Your task to perform on an android device: toggle priority inbox in the gmail app Image 0: 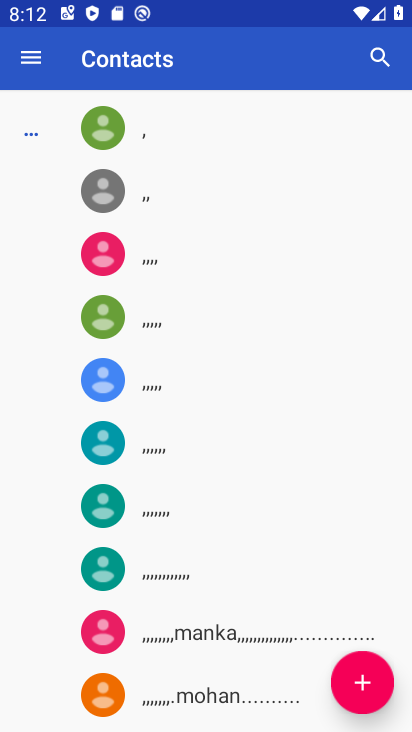
Step 0: press back button
Your task to perform on an android device: toggle priority inbox in the gmail app Image 1: 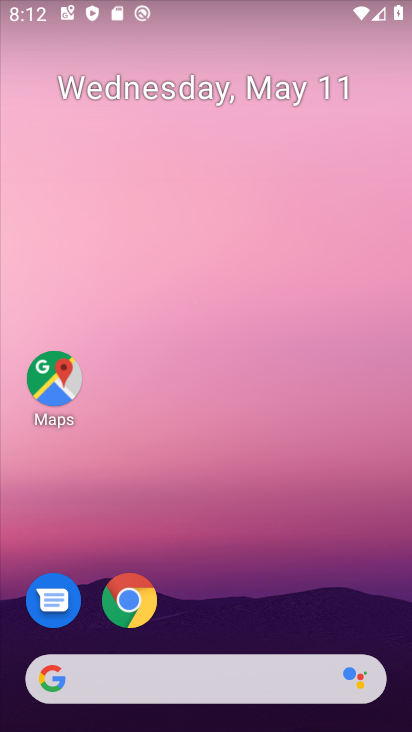
Step 1: drag from (266, 601) to (241, 19)
Your task to perform on an android device: toggle priority inbox in the gmail app Image 2: 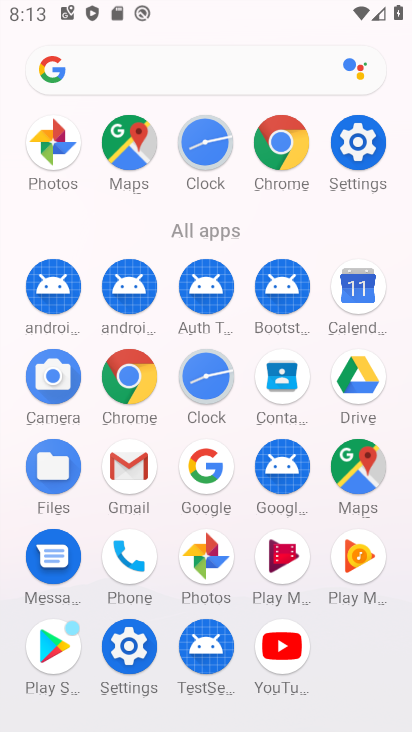
Step 2: click (130, 467)
Your task to perform on an android device: toggle priority inbox in the gmail app Image 3: 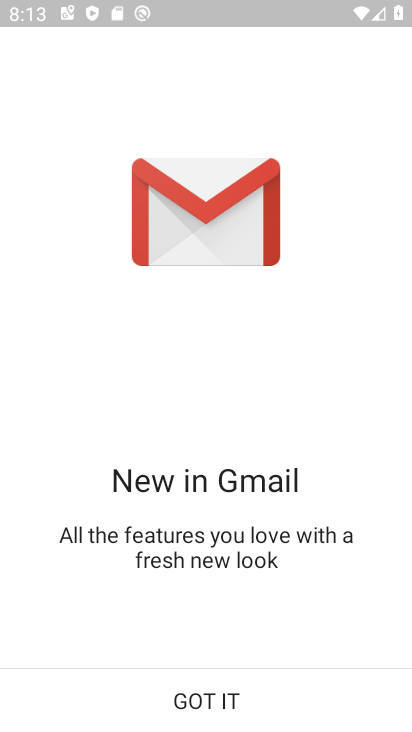
Step 3: click (193, 699)
Your task to perform on an android device: toggle priority inbox in the gmail app Image 4: 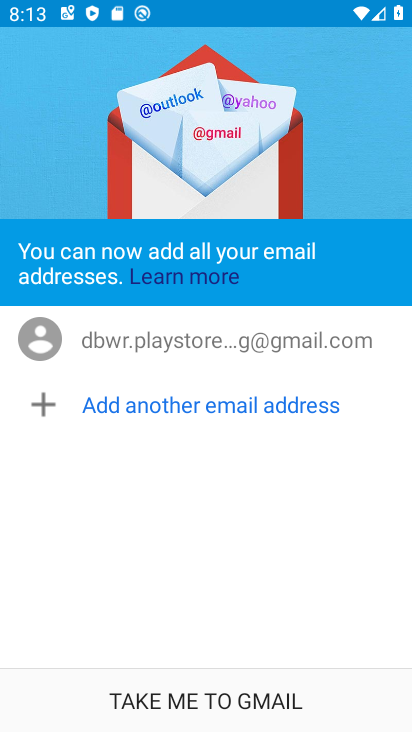
Step 4: click (193, 699)
Your task to perform on an android device: toggle priority inbox in the gmail app Image 5: 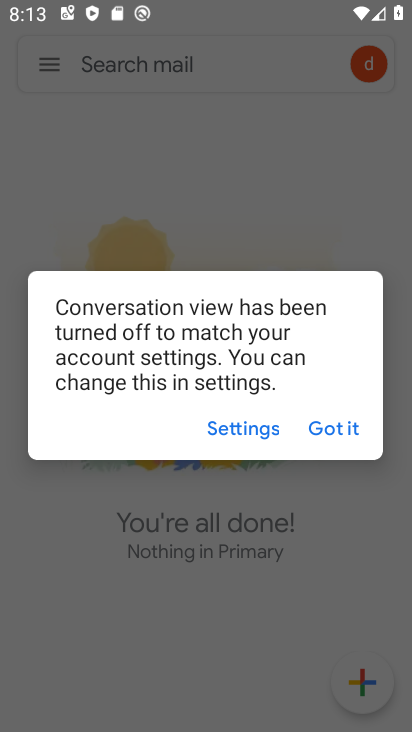
Step 5: click (327, 425)
Your task to perform on an android device: toggle priority inbox in the gmail app Image 6: 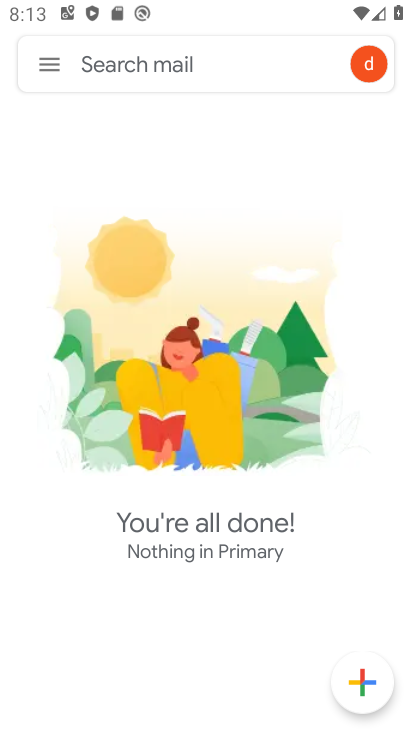
Step 6: click (52, 67)
Your task to perform on an android device: toggle priority inbox in the gmail app Image 7: 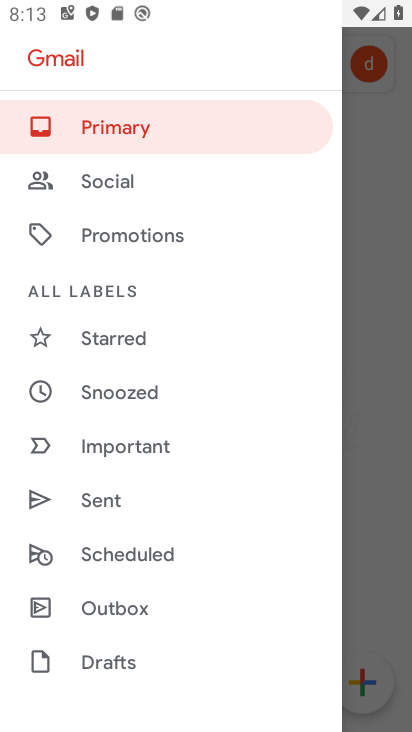
Step 7: drag from (136, 495) to (207, 395)
Your task to perform on an android device: toggle priority inbox in the gmail app Image 8: 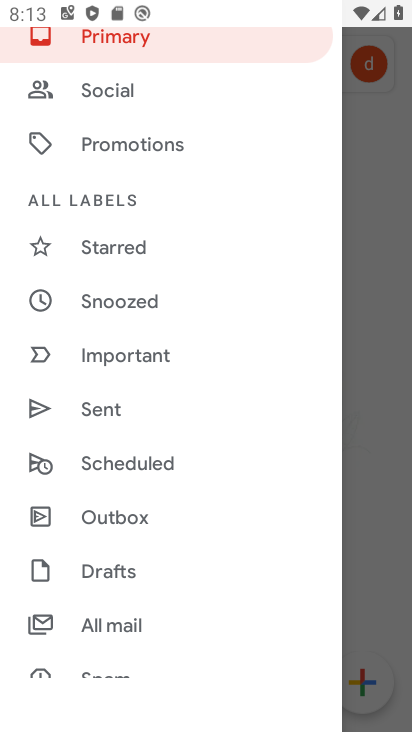
Step 8: drag from (143, 487) to (195, 401)
Your task to perform on an android device: toggle priority inbox in the gmail app Image 9: 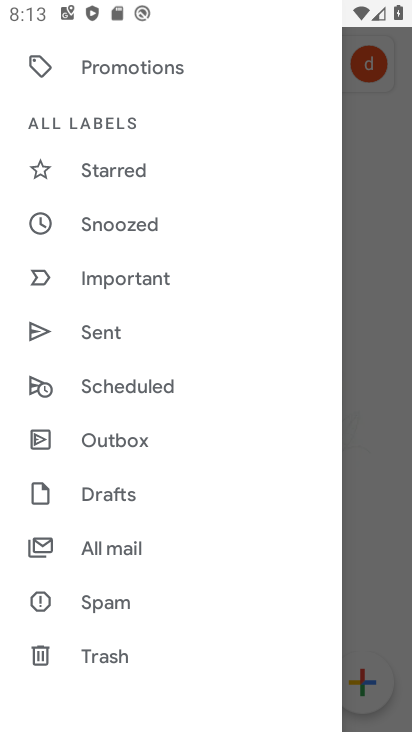
Step 9: drag from (120, 519) to (170, 416)
Your task to perform on an android device: toggle priority inbox in the gmail app Image 10: 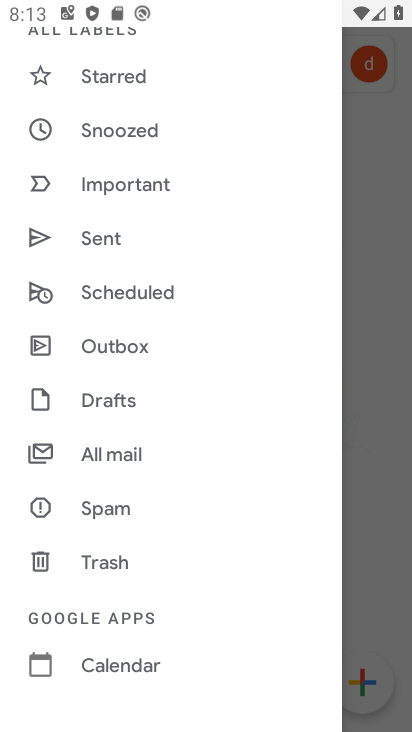
Step 10: drag from (104, 489) to (179, 399)
Your task to perform on an android device: toggle priority inbox in the gmail app Image 11: 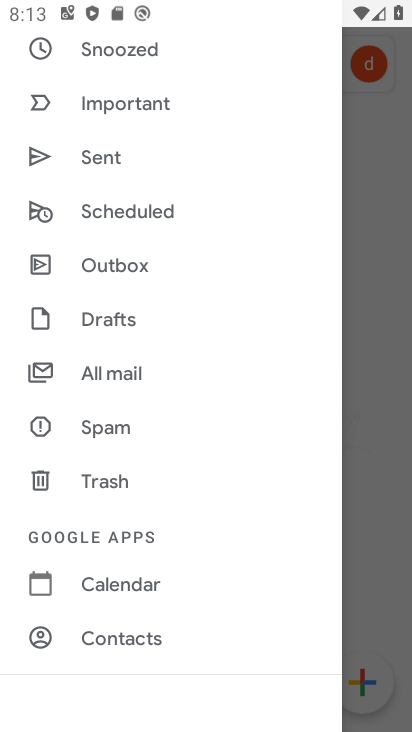
Step 11: drag from (111, 557) to (192, 447)
Your task to perform on an android device: toggle priority inbox in the gmail app Image 12: 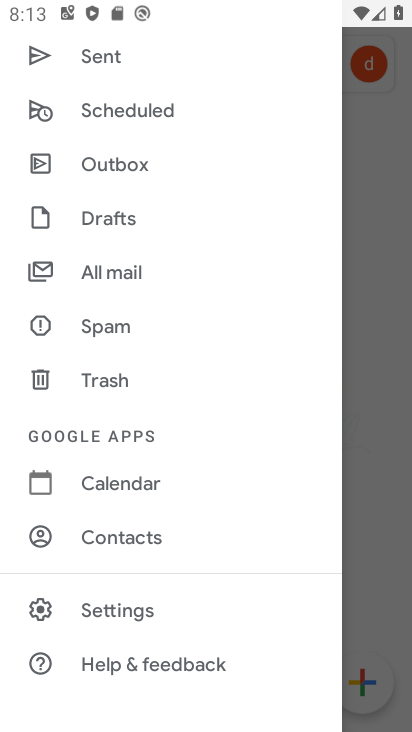
Step 12: drag from (118, 587) to (194, 485)
Your task to perform on an android device: toggle priority inbox in the gmail app Image 13: 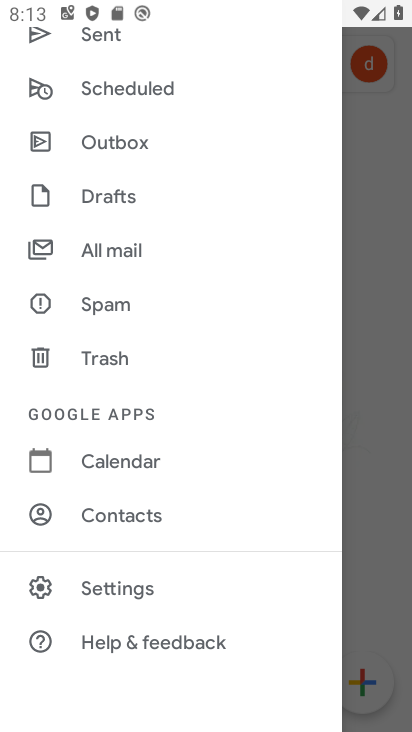
Step 13: click (122, 585)
Your task to perform on an android device: toggle priority inbox in the gmail app Image 14: 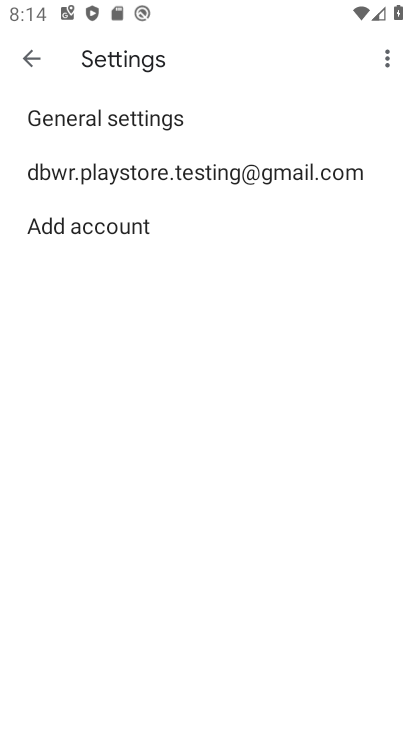
Step 14: click (224, 176)
Your task to perform on an android device: toggle priority inbox in the gmail app Image 15: 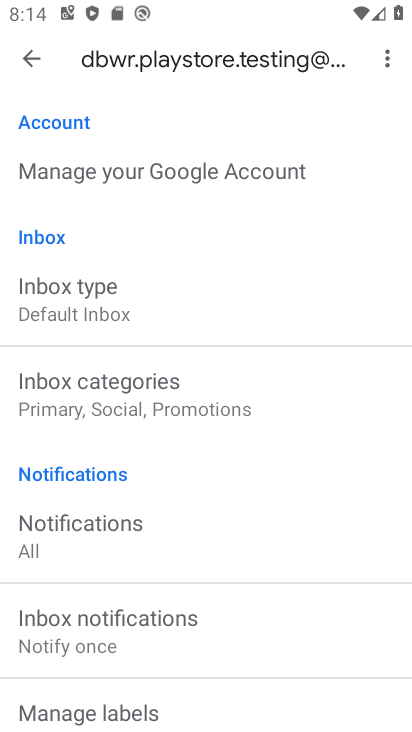
Step 15: drag from (122, 441) to (177, 337)
Your task to perform on an android device: toggle priority inbox in the gmail app Image 16: 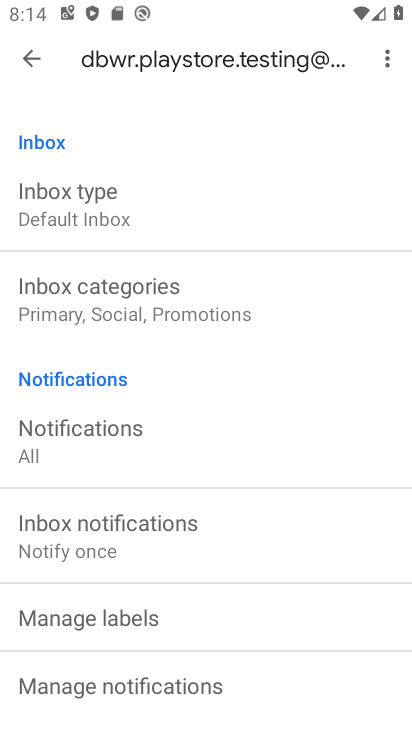
Step 16: drag from (106, 470) to (162, 389)
Your task to perform on an android device: toggle priority inbox in the gmail app Image 17: 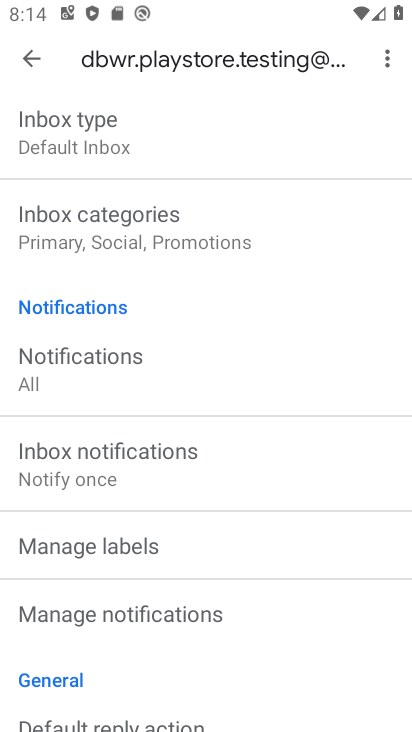
Step 17: click (112, 145)
Your task to perform on an android device: toggle priority inbox in the gmail app Image 18: 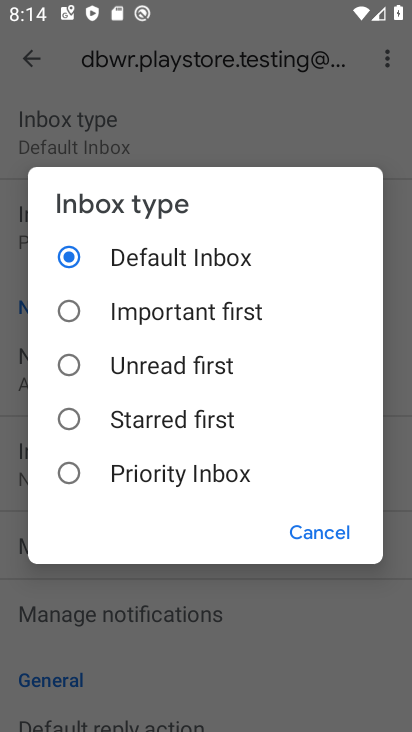
Step 18: click (71, 474)
Your task to perform on an android device: toggle priority inbox in the gmail app Image 19: 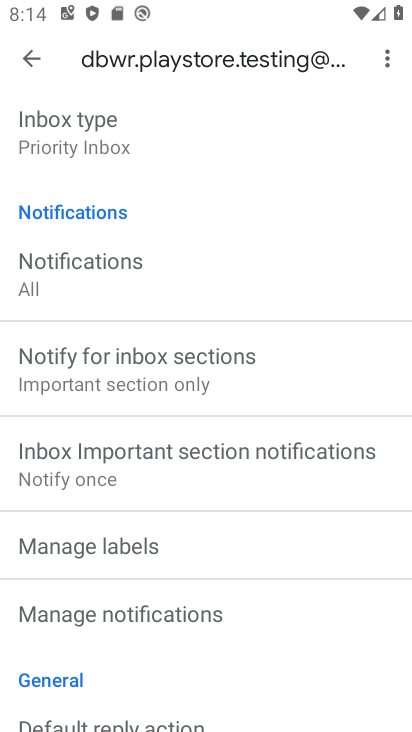
Step 19: task complete